Your task to perform on an android device: Turn on the flashlight Image 0: 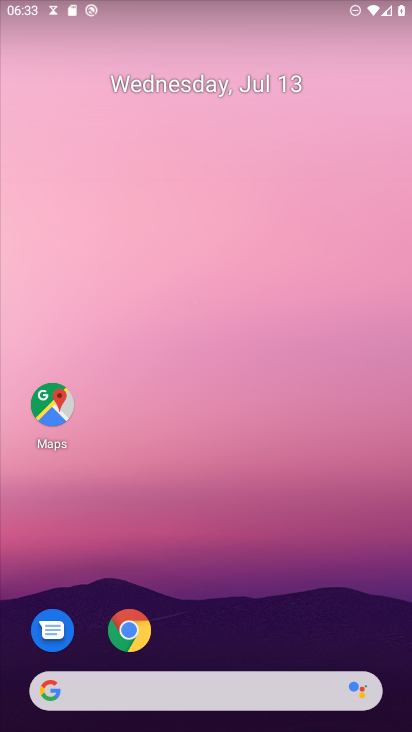
Step 0: drag from (294, 699) to (338, 129)
Your task to perform on an android device: Turn on the flashlight Image 1: 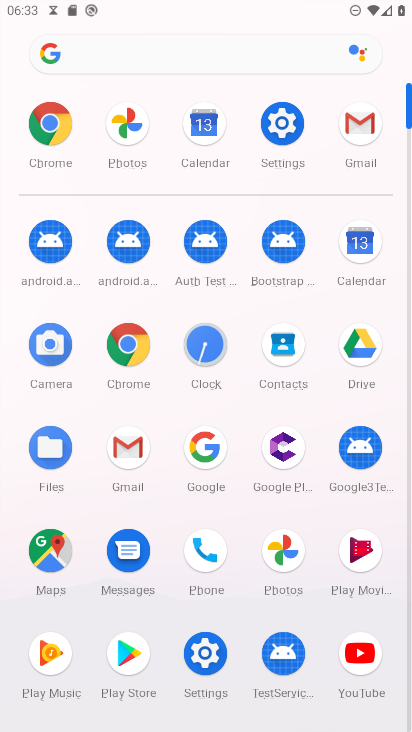
Step 1: task complete